Your task to perform on an android device: Open eBay Image 0: 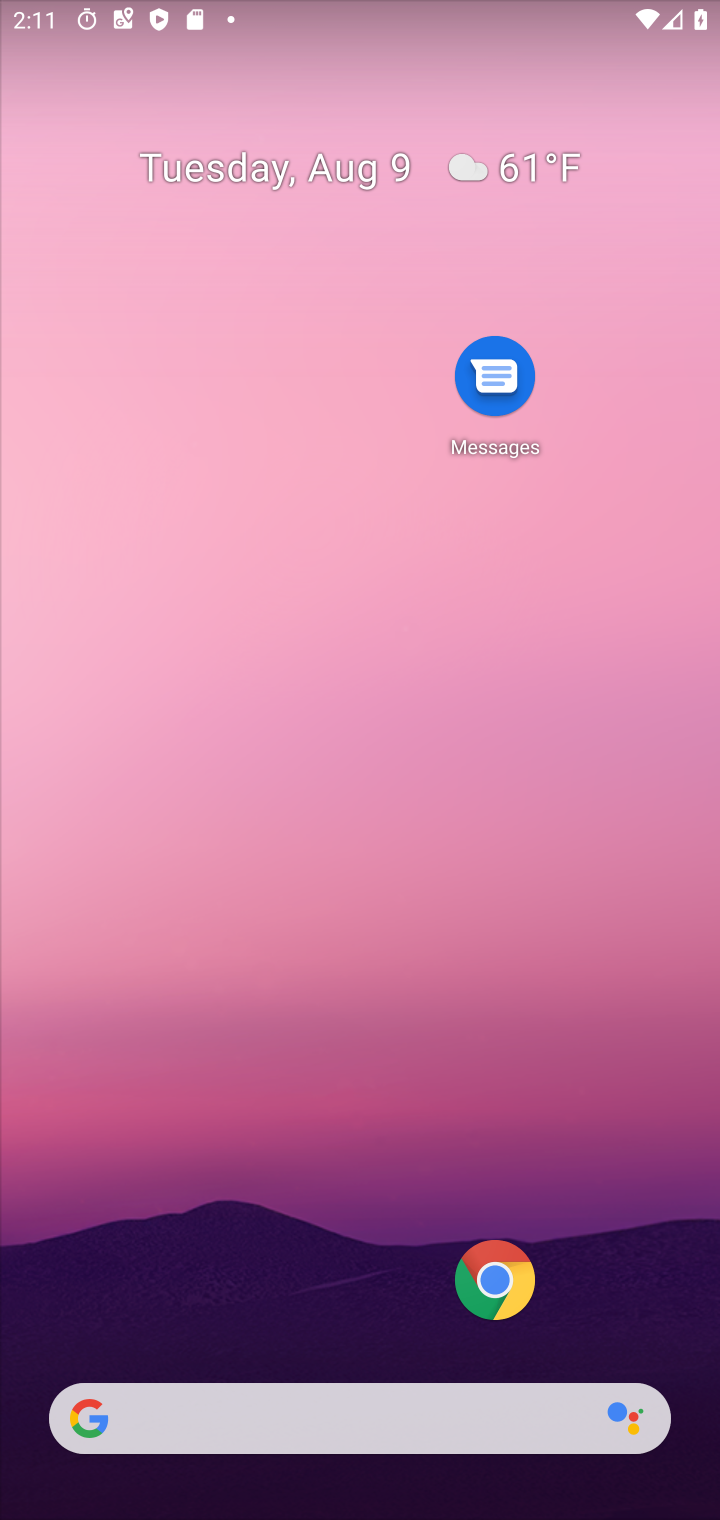
Step 0: click (489, 1282)
Your task to perform on an android device: Open eBay Image 1: 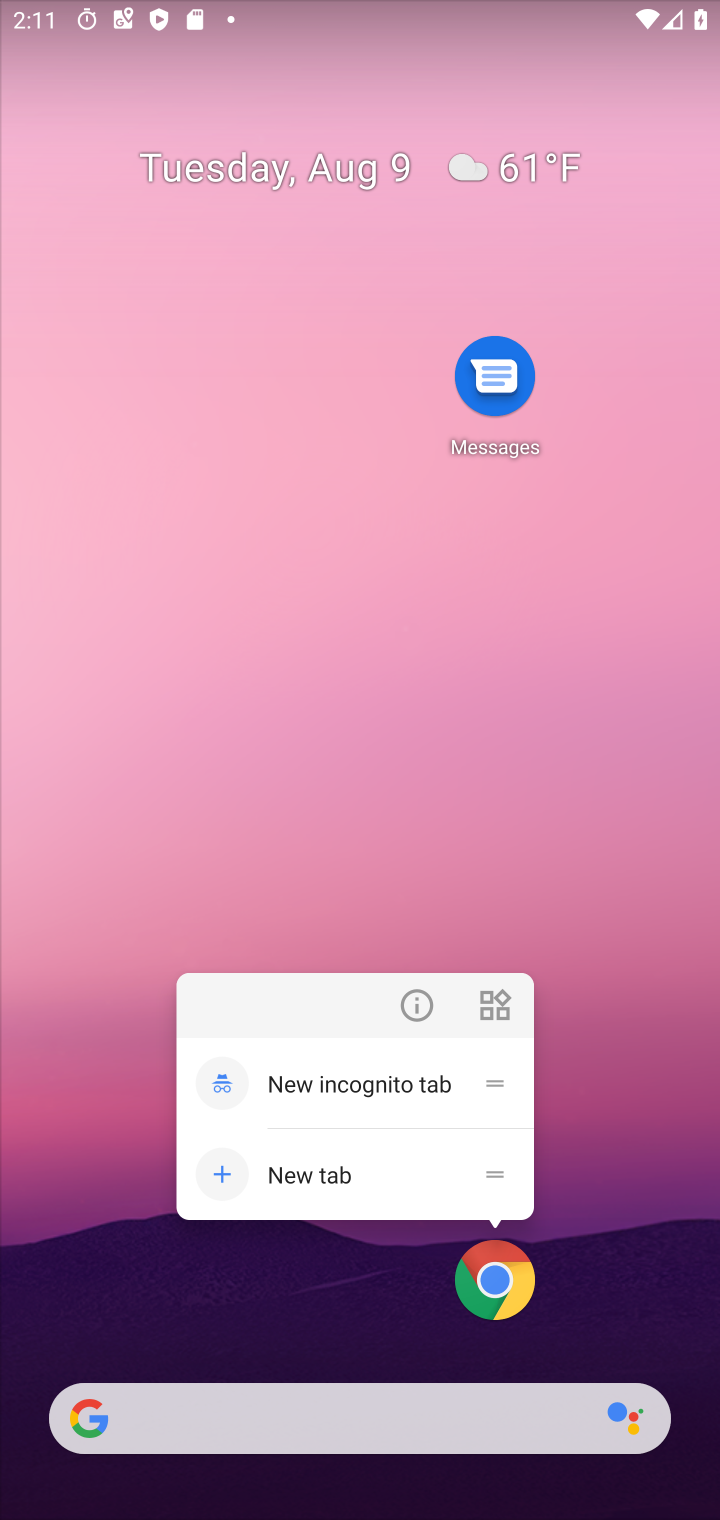
Step 1: click (489, 1293)
Your task to perform on an android device: Open eBay Image 2: 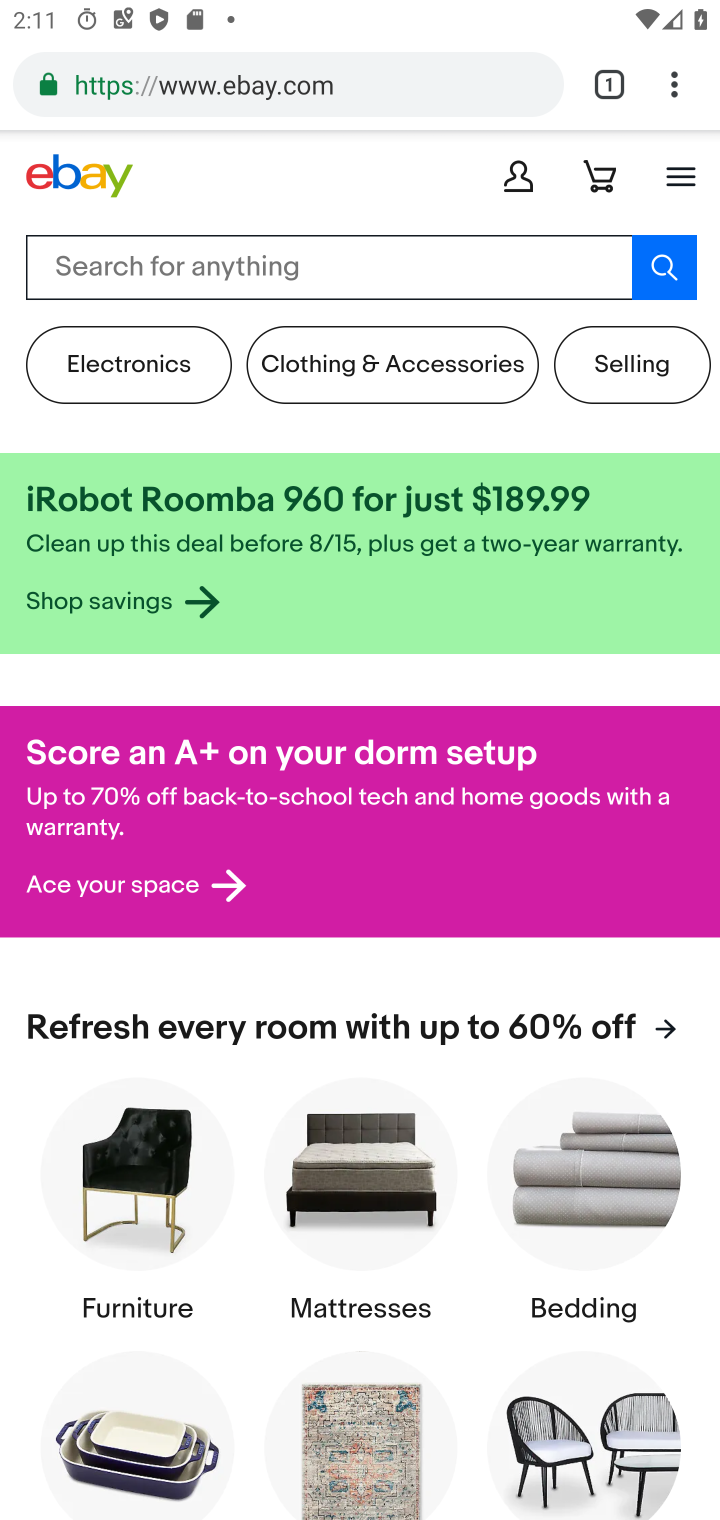
Step 2: click (264, 771)
Your task to perform on an android device: Open eBay Image 3: 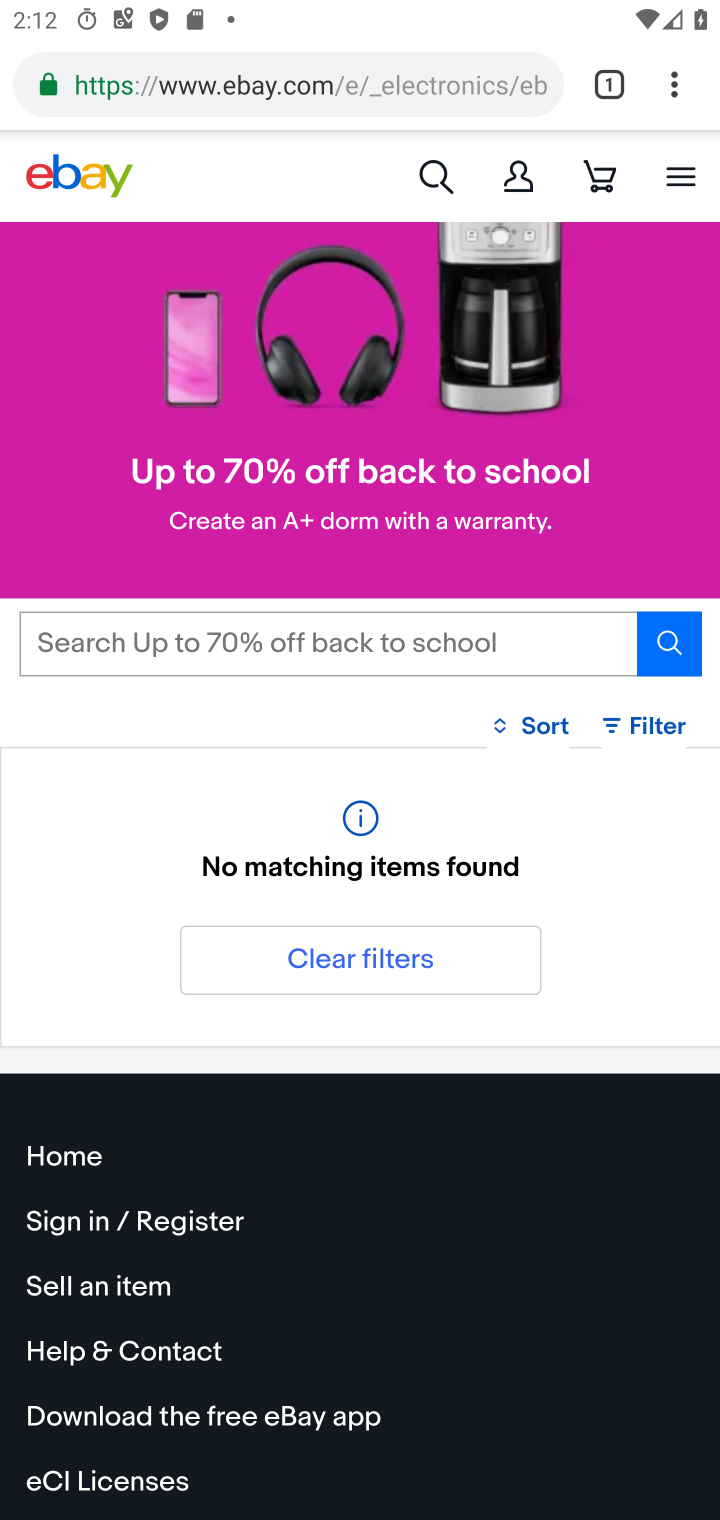
Step 3: task complete